Your task to perform on an android device: Show me the top rated dinnerware on Crate & Barrel Image 0: 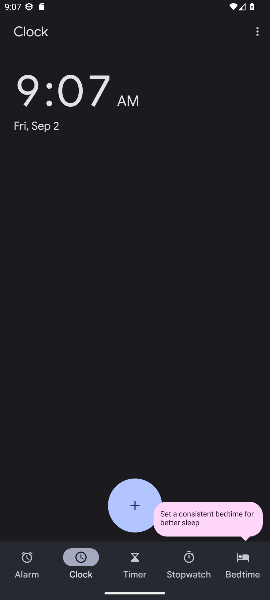
Step 0: press home button
Your task to perform on an android device: Show me the top rated dinnerware on Crate & Barrel Image 1: 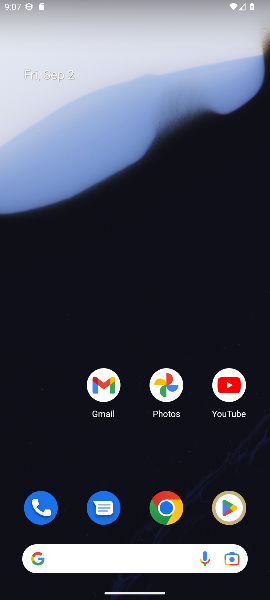
Step 1: click (166, 509)
Your task to perform on an android device: Show me the top rated dinnerware on Crate & Barrel Image 2: 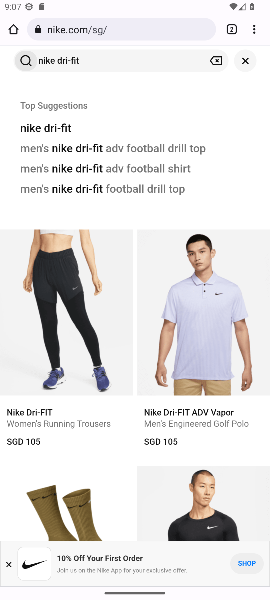
Step 2: click (126, 26)
Your task to perform on an android device: Show me the top rated dinnerware on Crate & Barrel Image 3: 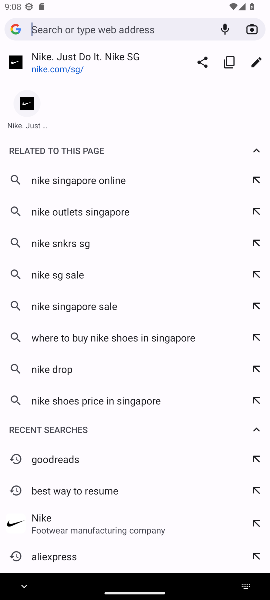
Step 3: type "Show me the top rated dinnerware on Crate & Barrel"
Your task to perform on an android device: Show me the top rated dinnerware on Crate & Barrel Image 4: 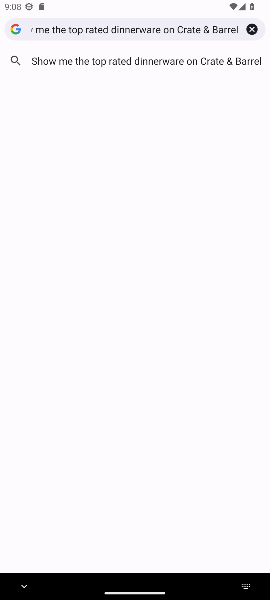
Step 4: click (91, 56)
Your task to perform on an android device: Show me the top rated dinnerware on Crate & Barrel Image 5: 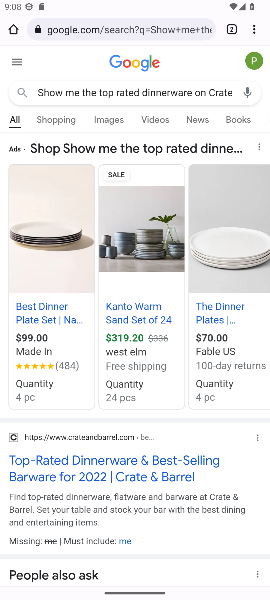
Step 5: task complete